Your task to perform on an android device: toggle airplane mode Image 0: 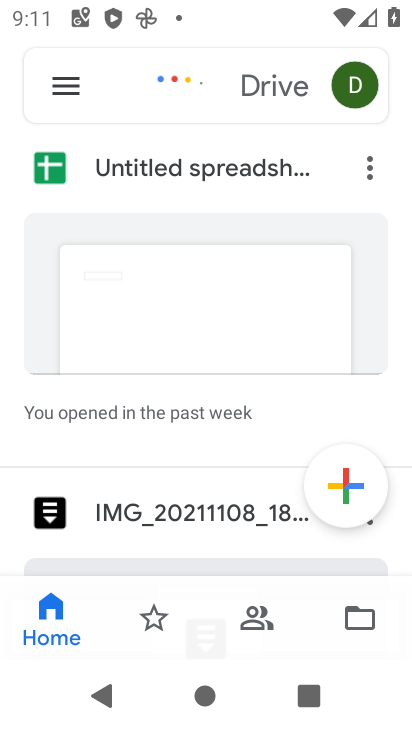
Step 0: drag from (219, 529) to (273, 75)
Your task to perform on an android device: toggle airplane mode Image 1: 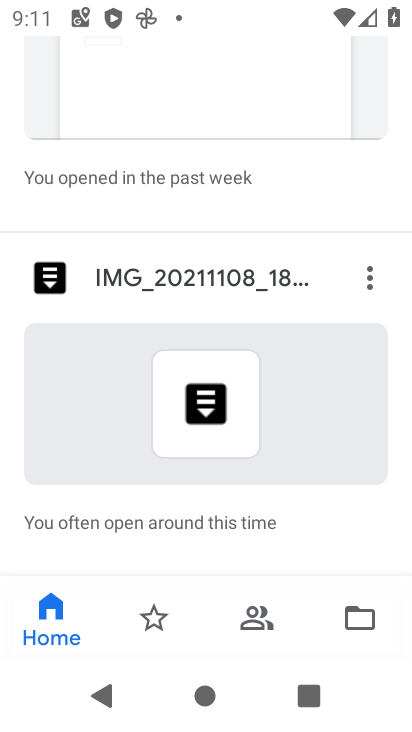
Step 1: press home button
Your task to perform on an android device: toggle airplane mode Image 2: 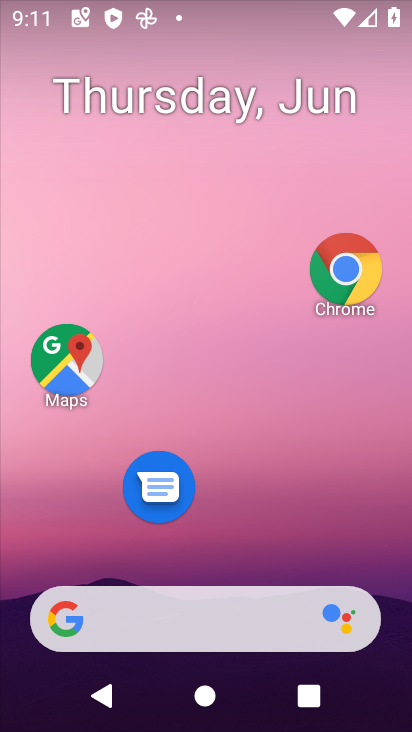
Step 2: drag from (204, 576) to (256, 101)
Your task to perform on an android device: toggle airplane mode Image 3: 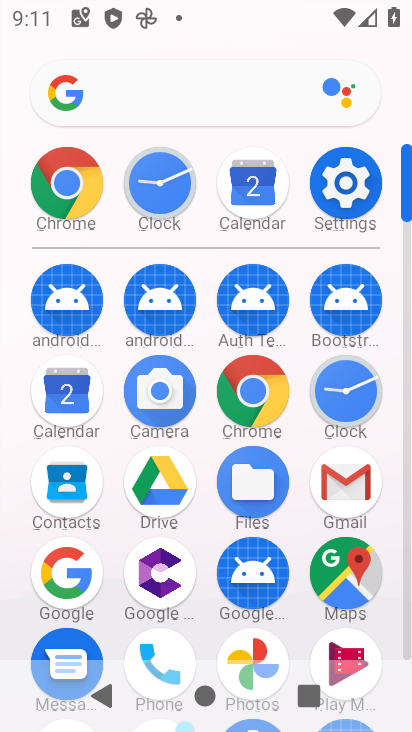
Step 3: click (340, 181)
Your task to perform on an android device: toggle airplane mode Image 4: 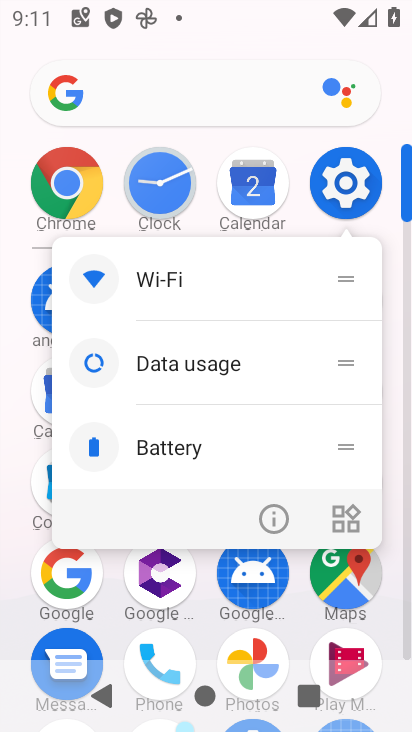
Step 4: click (274, 518)
Your task to perform on an android device: toggle airplane mode Image 5: 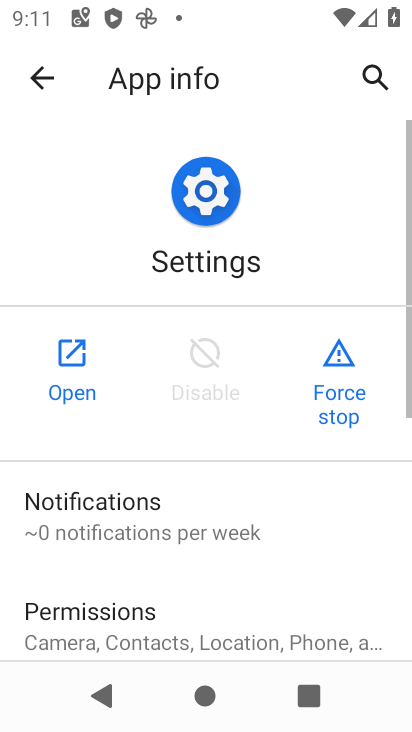
Step 5: click (70, 356)
Your task to perform on an android device: toggle airplane mode Image 6: 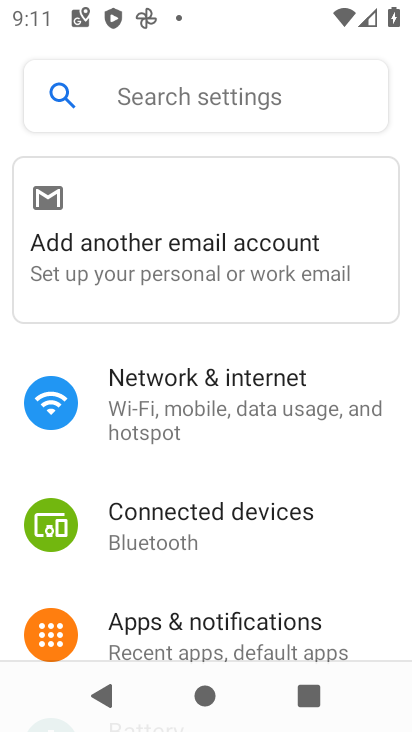
Step 6: click (177, 403)
Your task to perform on an android device: toggle airplane mode Image 7: 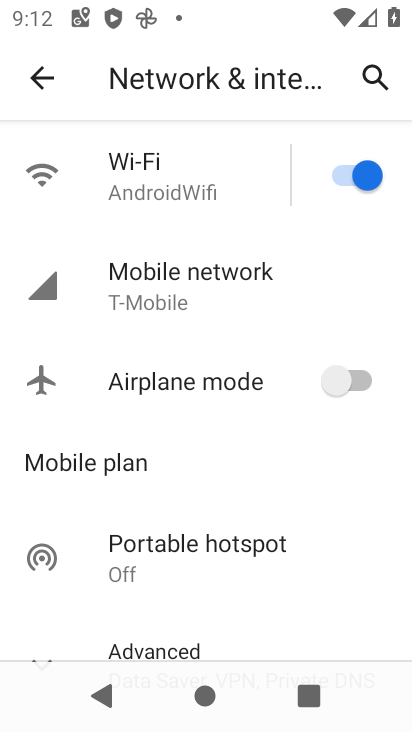
Step 7: click (215, 174)
Your task to perform on an android device: toggle airplane mode Image 8: 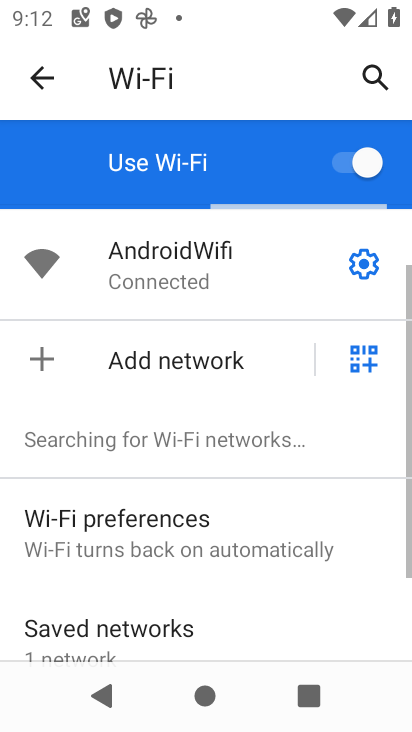
Step 8: click (56, 95)
Your task to perform on an android device: toggle airplane mode Image 9: 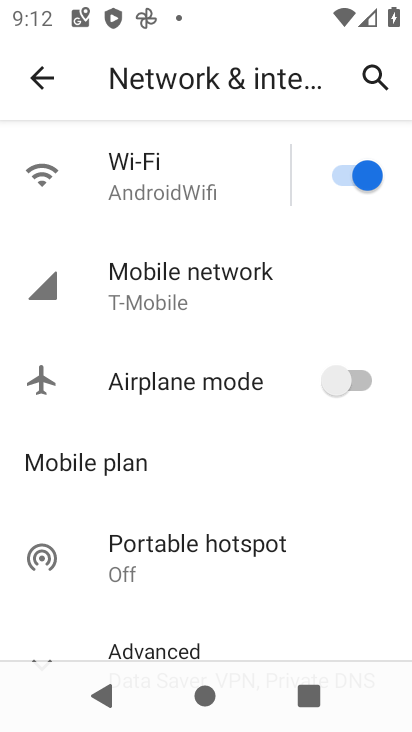
Step 9: click (318, 371)
Your task to perform on an android device: toggle airplane mode Image 10: 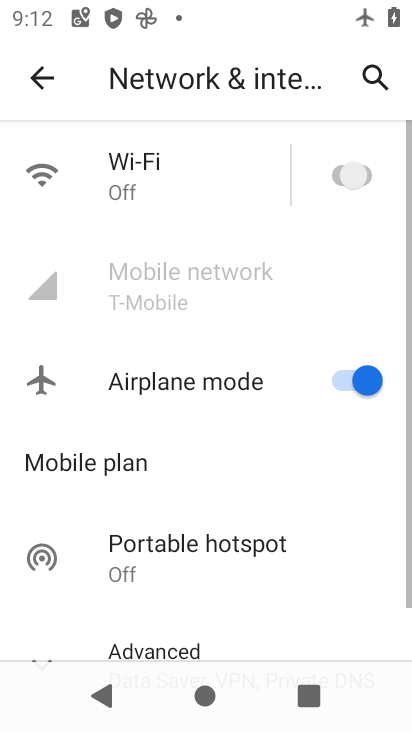
Step 10: task complete